Your task to perform on an android device: Go to Maps Image 0: 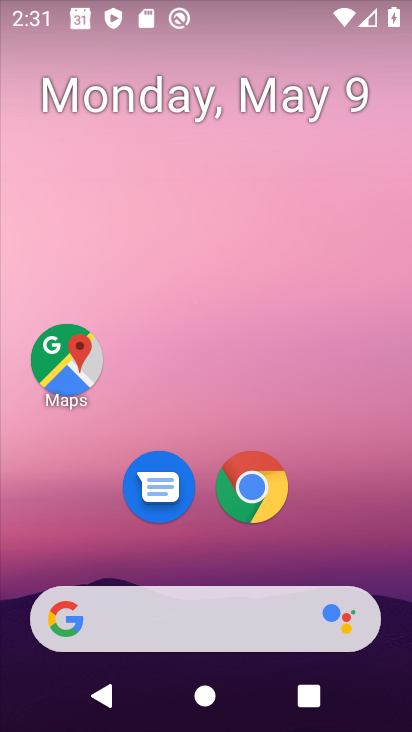
Step 0: drag from (301, 559) to (357, 46)
Your task to perform on an android device: Go to Maps Image 1: 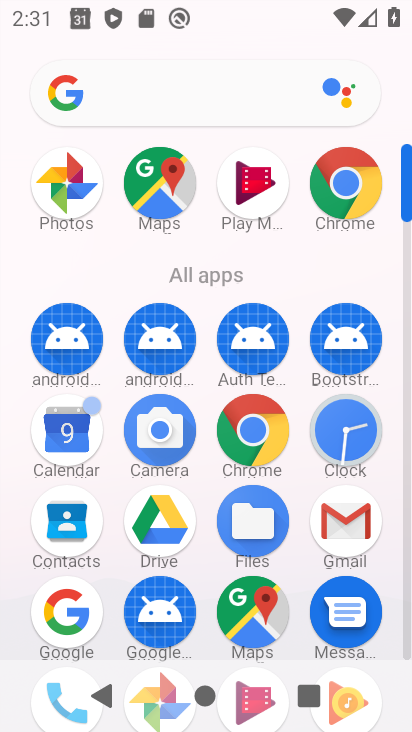
Step 1: click (247, 616)
Your task to perform on an android device: Go to Maps Image 2: 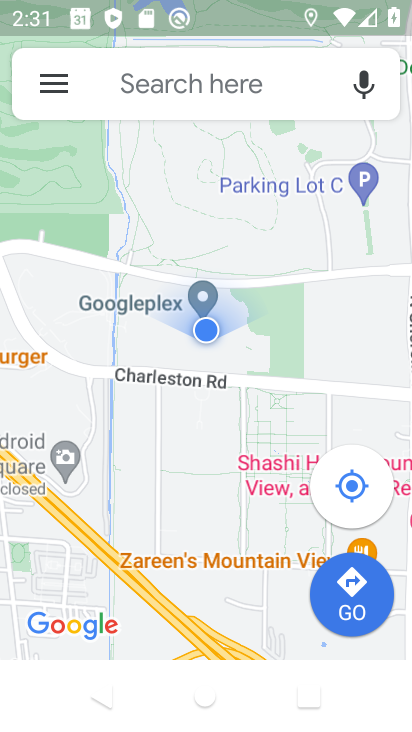
Step 2: task complete